Your task to perform on an android device: View the shopping cart on ebay. Add usb-a to usb-b to the cart on ebay Image 0: 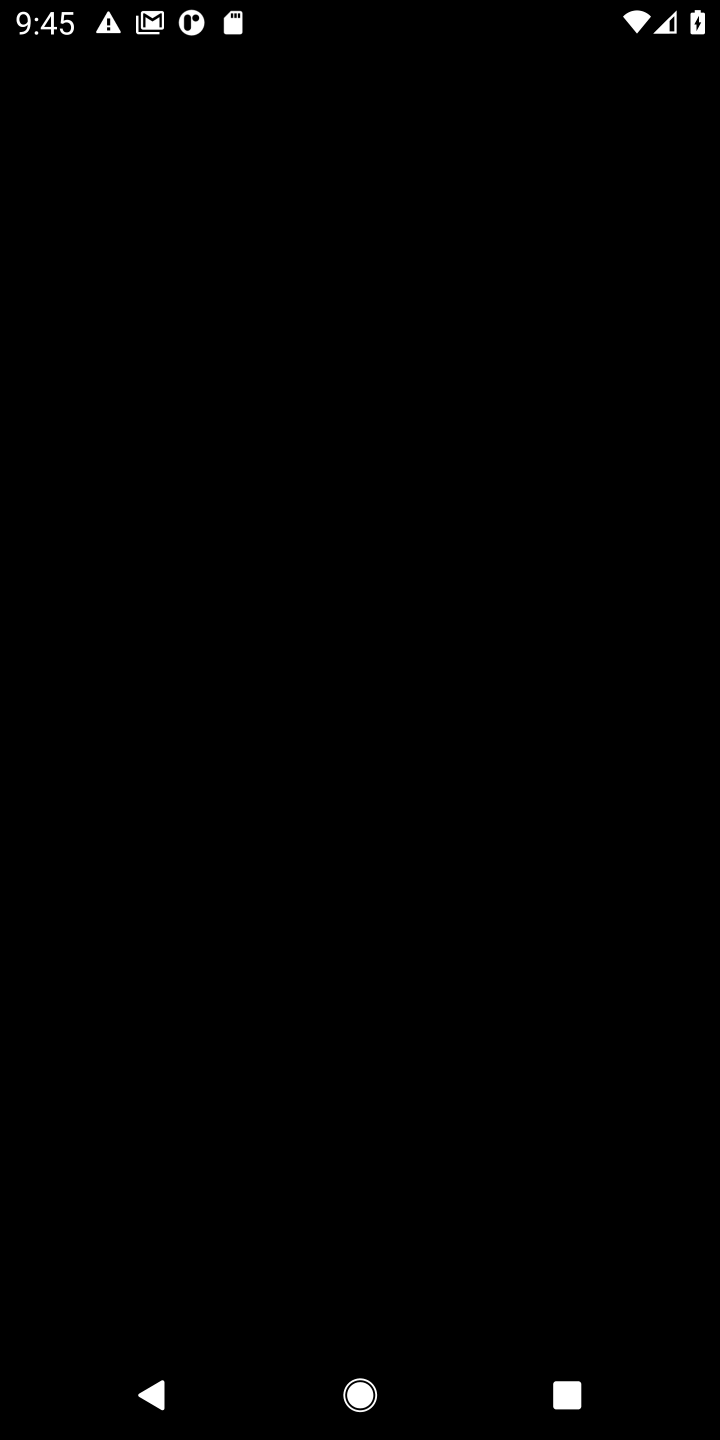
Step 0: press home button
Your task to perform on an android device: View the shopping cart on ebay. Add usb-a to usb-b to the cart on ebay Image 1: 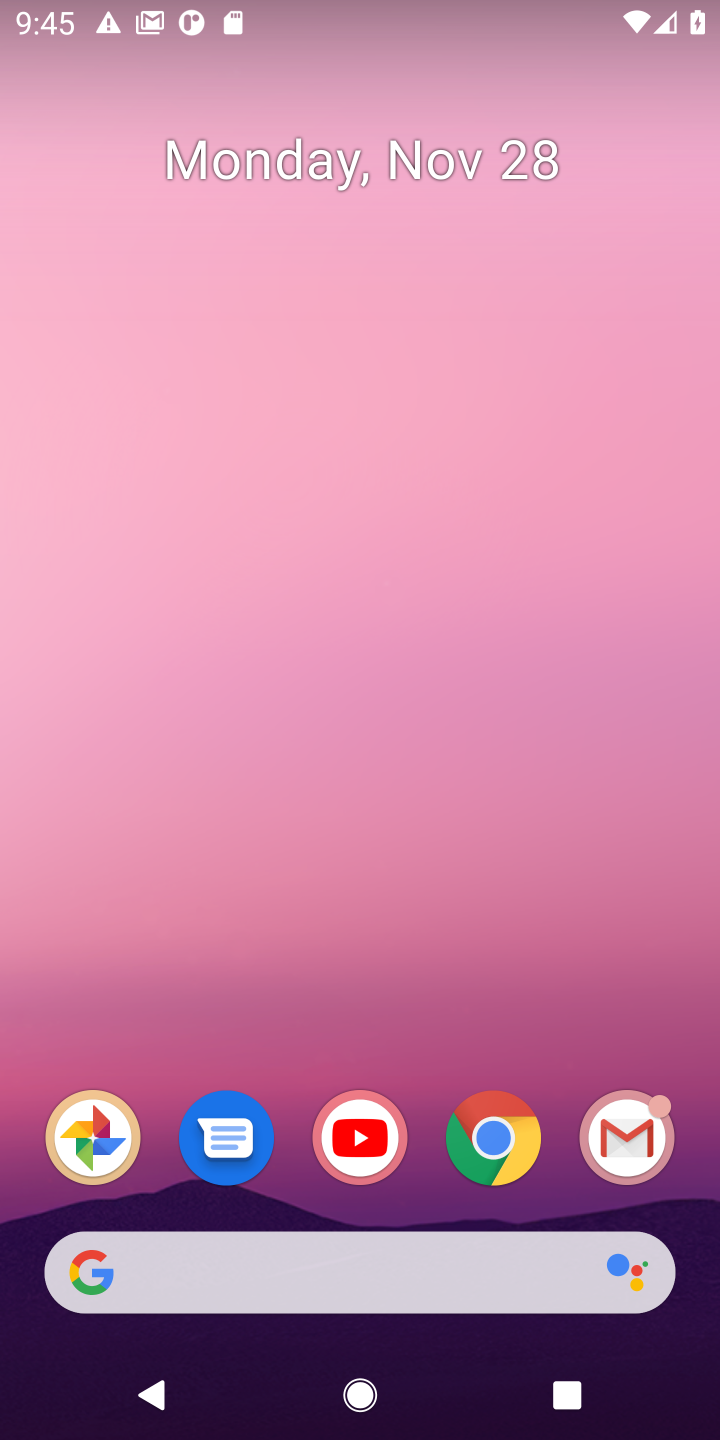
Step 1: click (497, 1145)
Your task to perform on an android device: View the shopping cart on ebay. Add usb-a to usb-b to the cart on ebay Image 2: 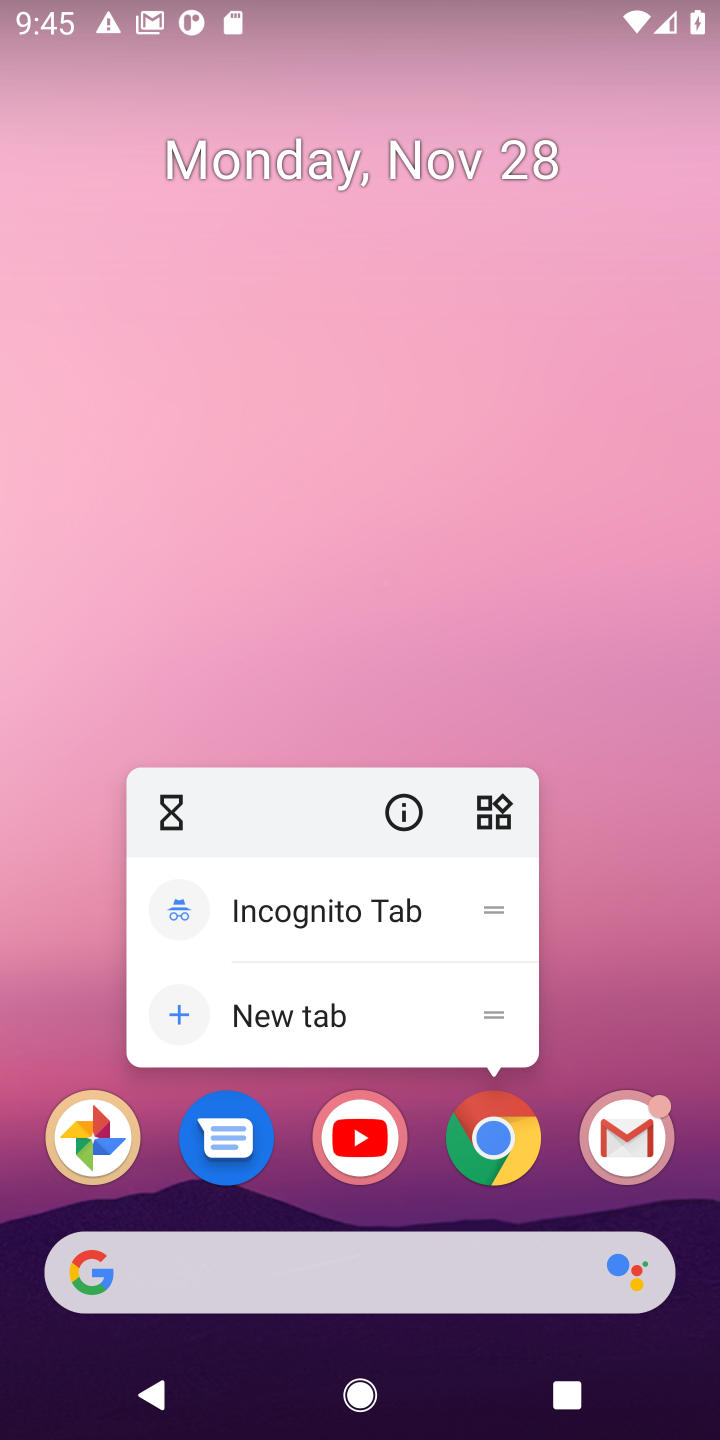
Step 2: click (497, 1145)
Your task to perform on an android device: View the shopping cart on ebay. Add usb-a to usb-b to the cart on ebay Image 3: 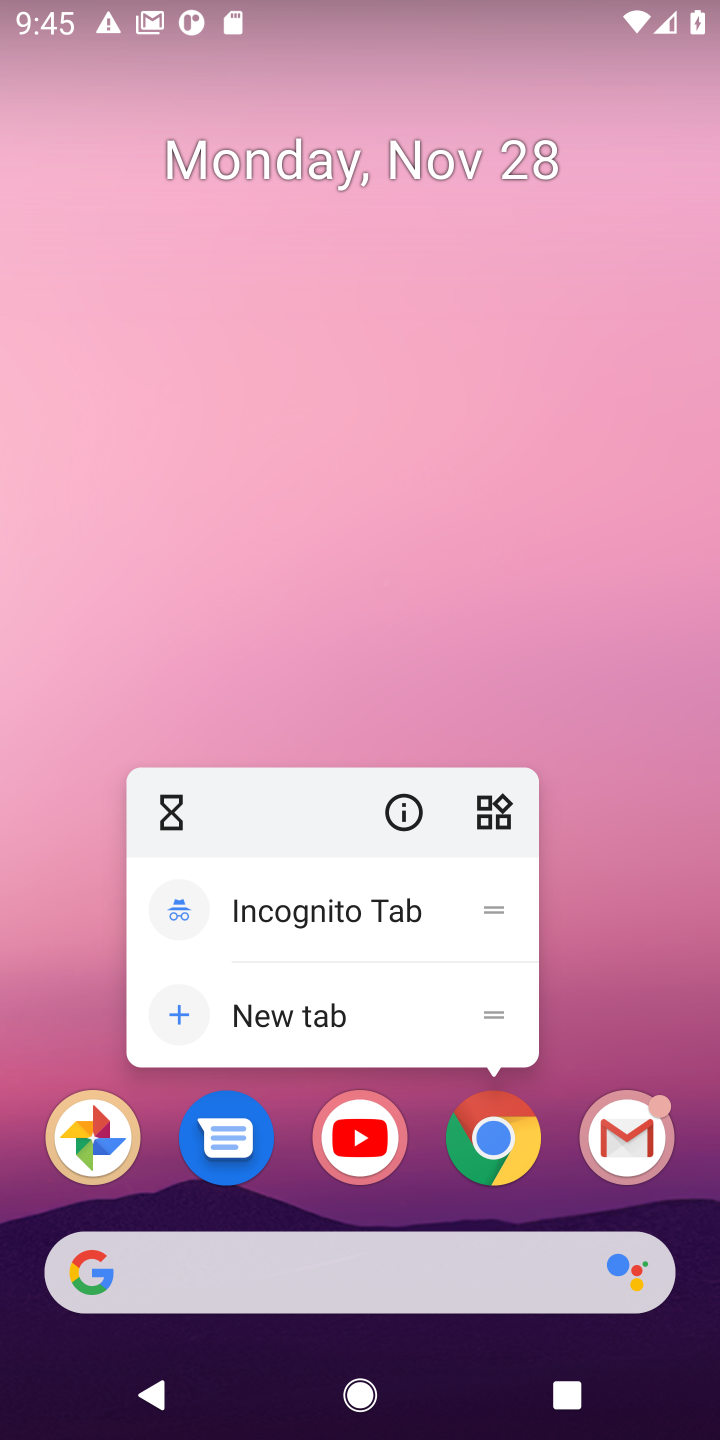
Step 3: click (497, 1145)
Your task to perform on an android device: View the shopping cart on ebay. Add usb-a to usb-b to the cart on ebay Image 4: 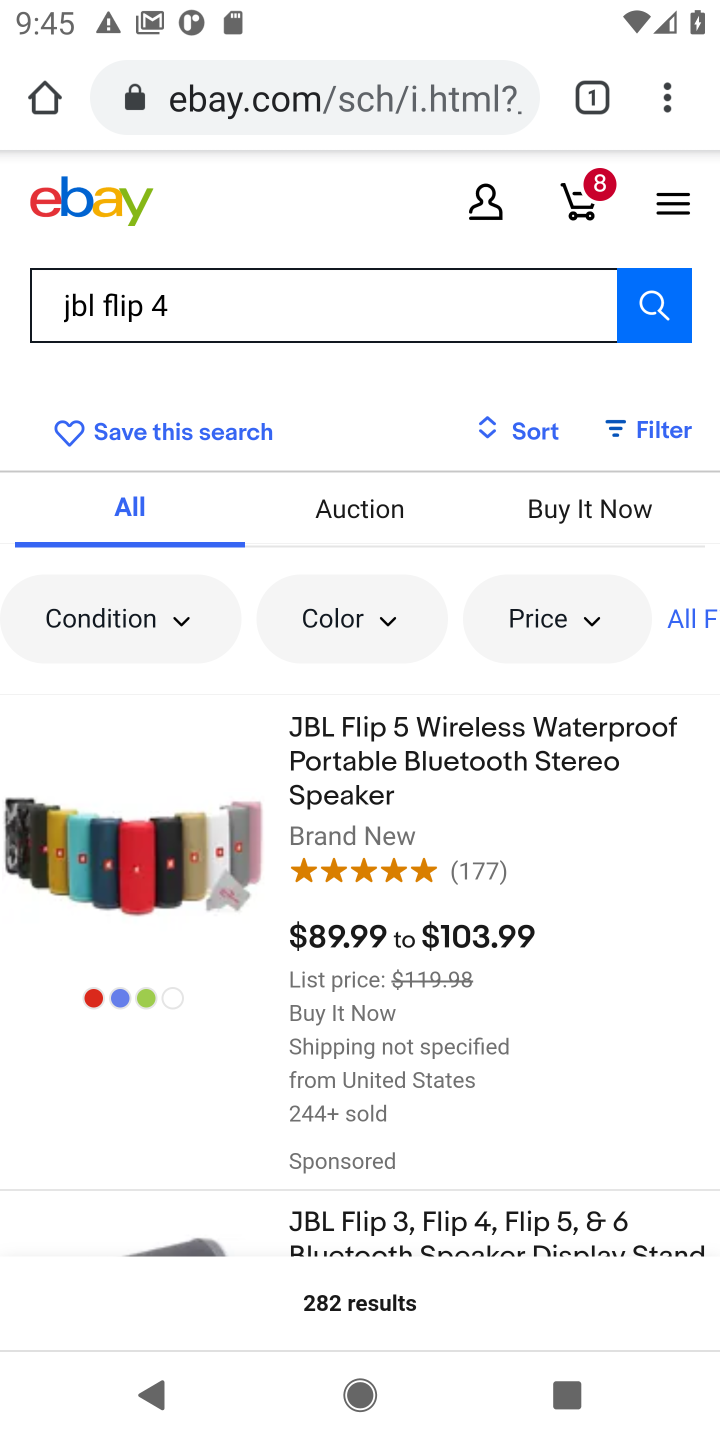
Step 4: click (583, 206)
Your task to perform on an android device: View the shopping cart on ebay. Add usb-a to usb-b to the cart on ebay Image 5: 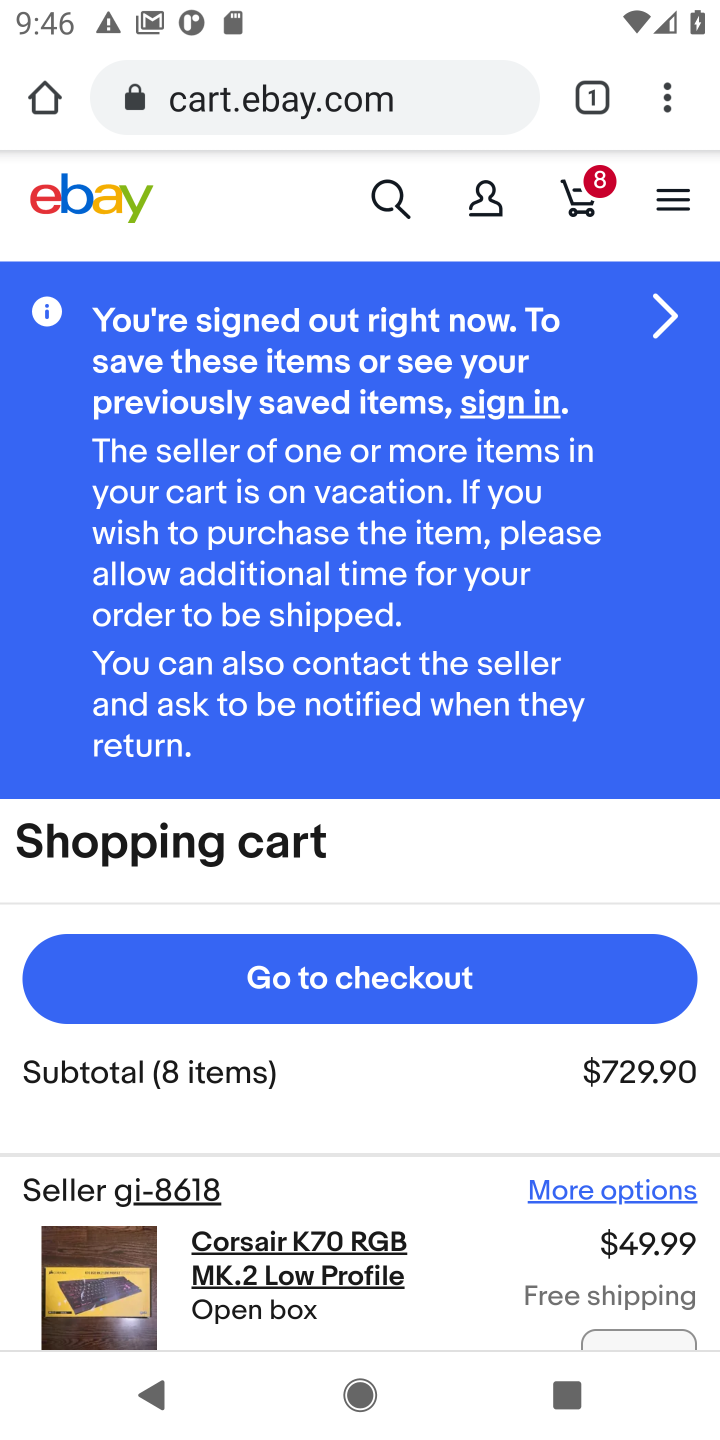
Step 5: click (391, 204)
Your task to perform on an android device: View the shopping cart on ebay. Add usb-a to usb-b to the cart on ebay Image 6: 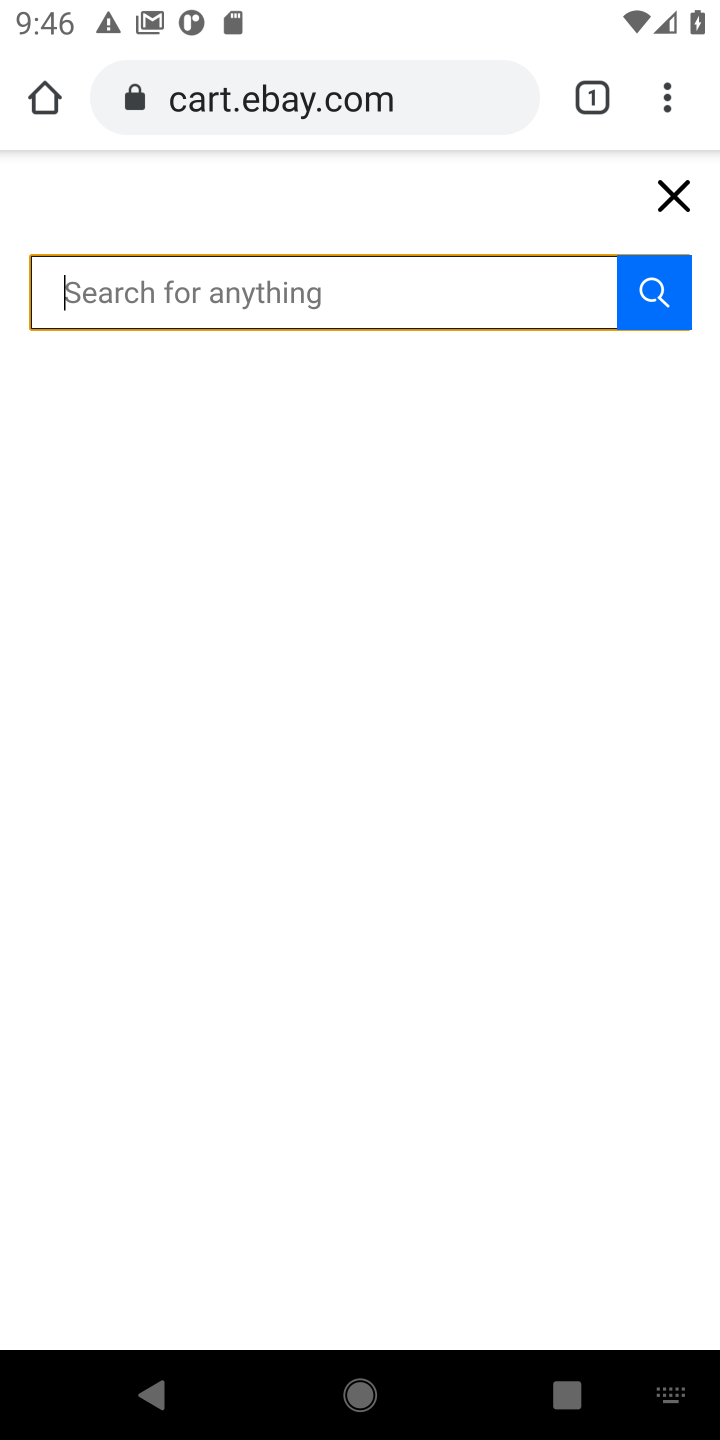
Step 6: type "usb-a to usb-b"
Your task to perform on an android device: View the shopping cart on ebay. Add usb-a to usb-b to the cart on ebay Image 7: 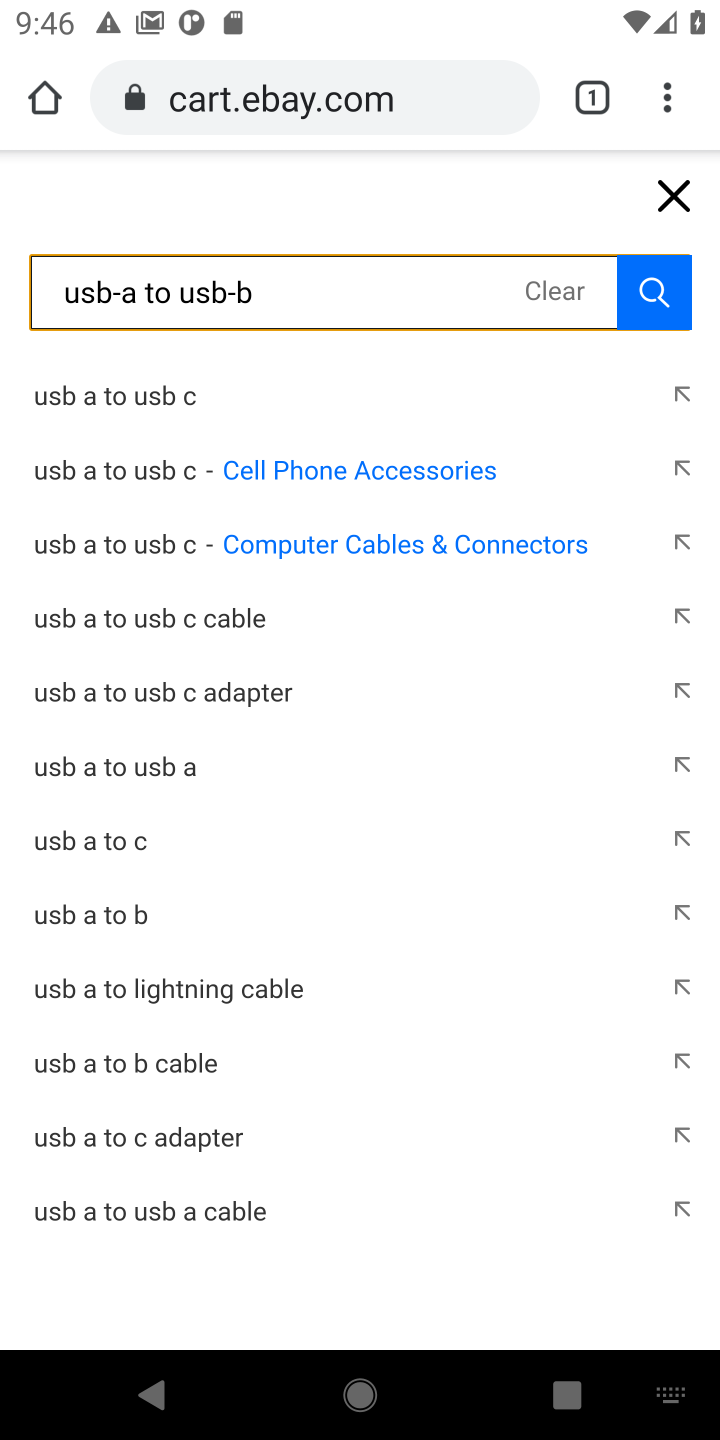
Step 7: click (655, 296)
Your task to perform on an android device: View the shopping cart on ebay. Add usb-a to usb-b to the cart on ebay Image 8: 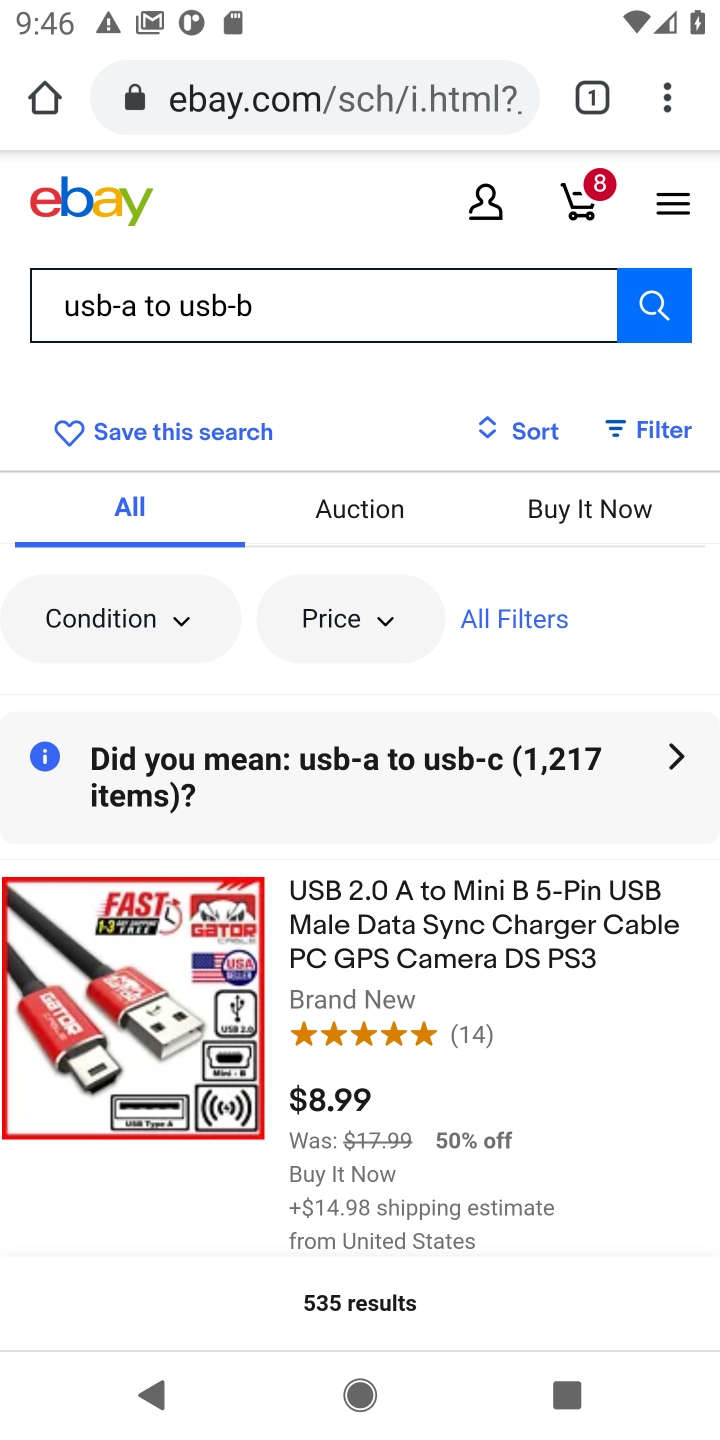
Step 8: drag from (404, 1054) to (429, 588)
Your task to perform on an android device: View the shopping cart on ebay. Add usb-a to usb-b to the cart on ebay Image 9: 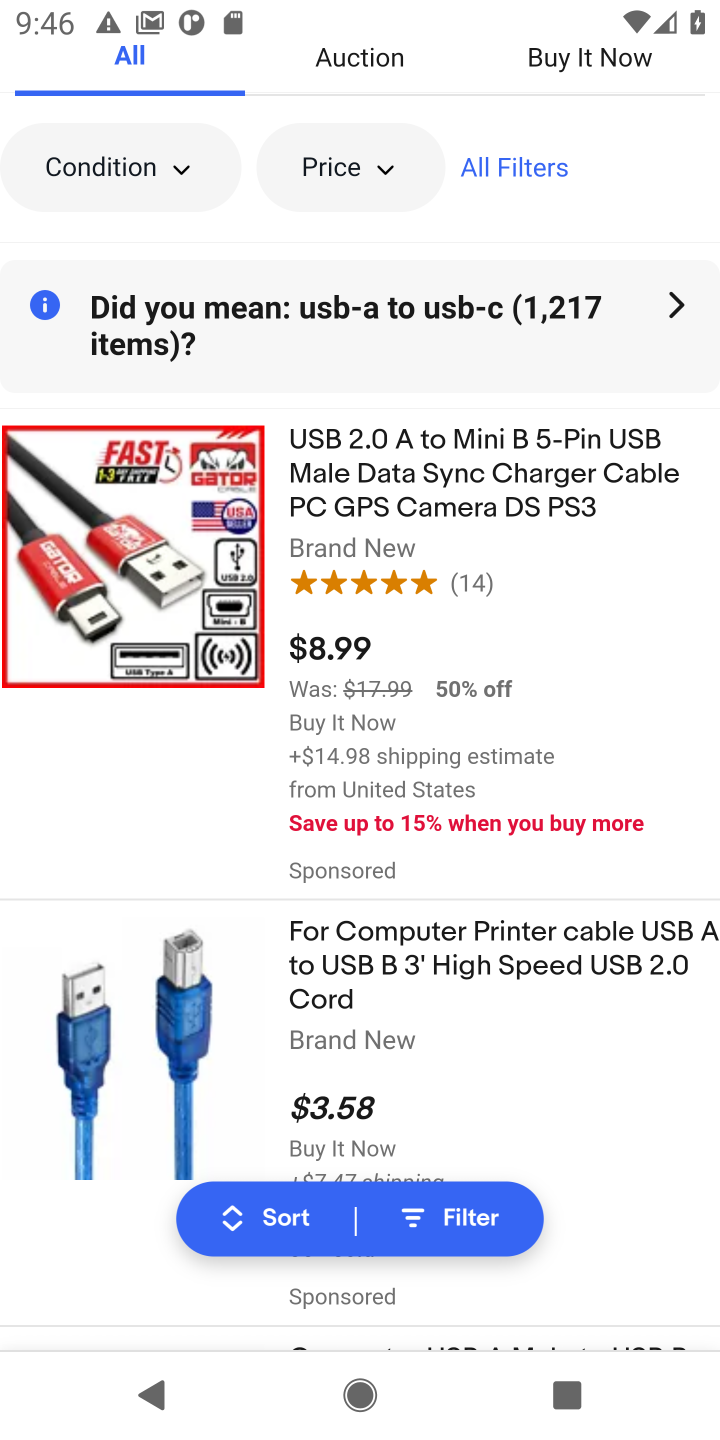
Step 9: click (457, 514)
Your task to perform on an android device: View the shopping cart on ebay. Add usb-a to usb-b to the cart on ebay Image 10: 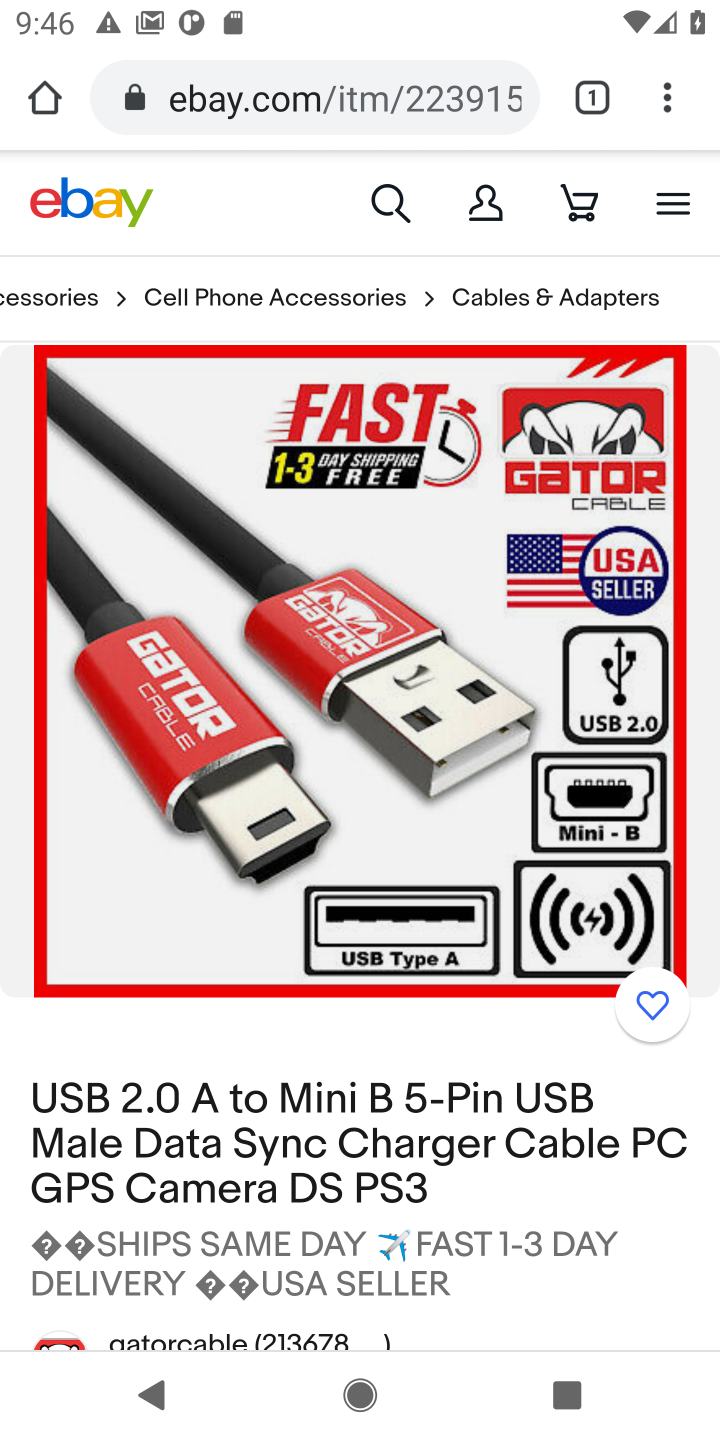
Step 10: drag from (507, 1086) to (507, 428)
Your task to perform on an android device: View the shopping cart on ebay. Add usb-a to usb-b to the cart on ebay Image 11: 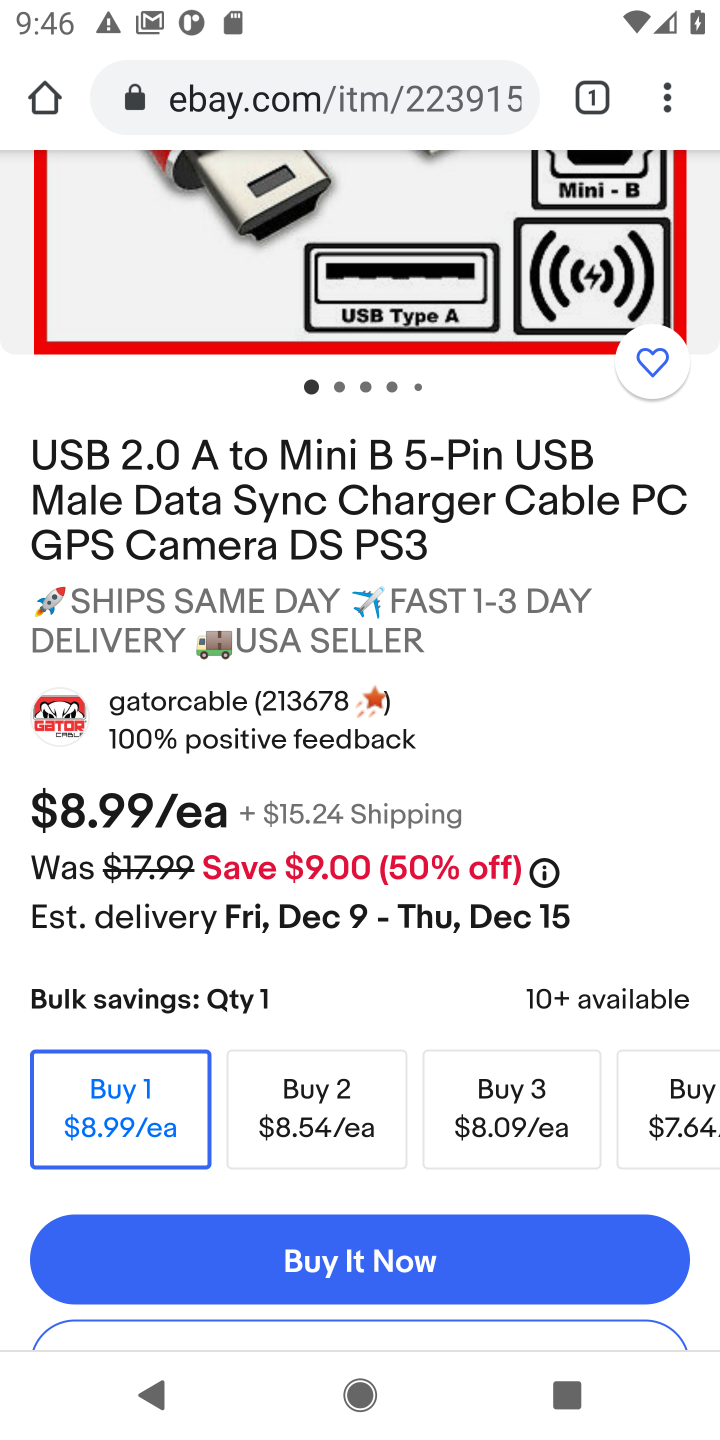
Step 11: drag from (412, 1098) to (422, 665)
Your task to perform on an android device: View the shopping cart on ebay. Add usb-a to usb-b to the cart on ebay Image 12: 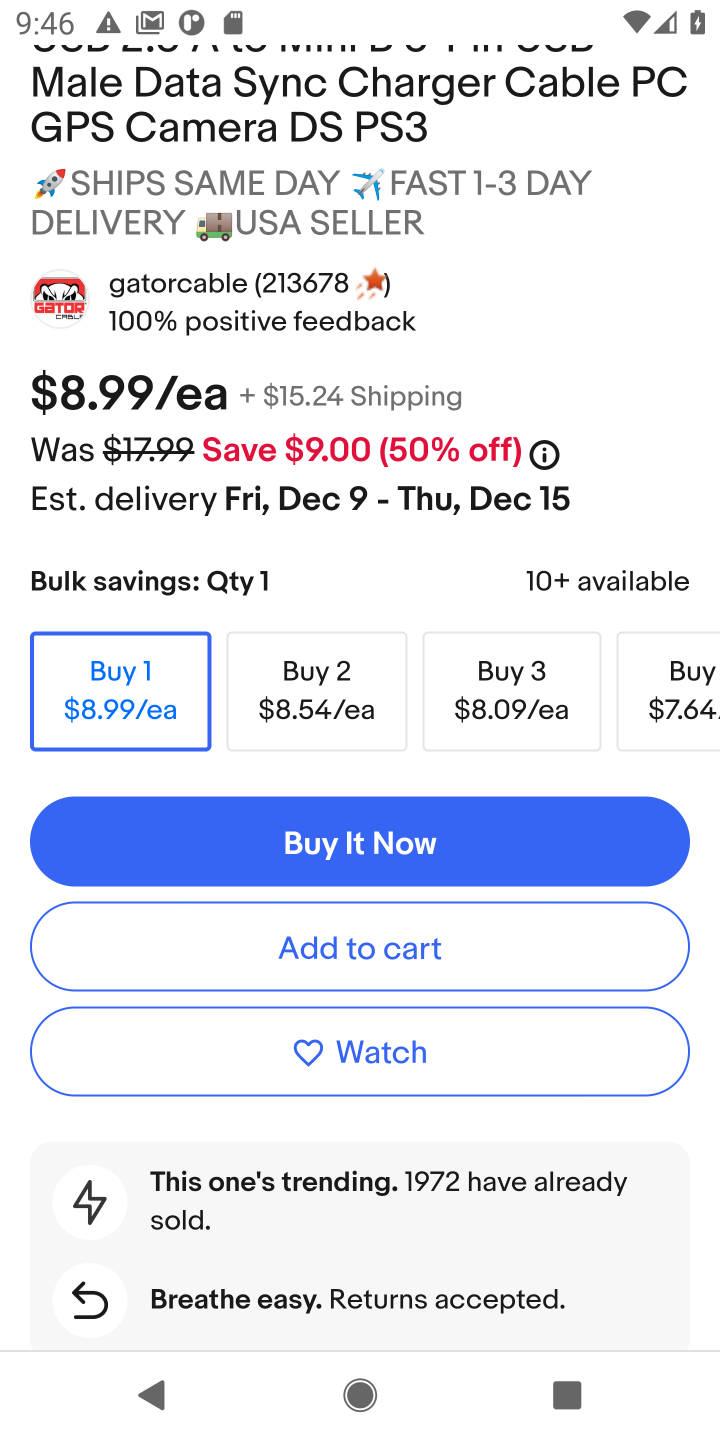
Step 12: click (362, 938)
Your task to perform on an android device: View the shopping cart on ebay. Add usb-a to usb-b to the cart on ebay Image 13: 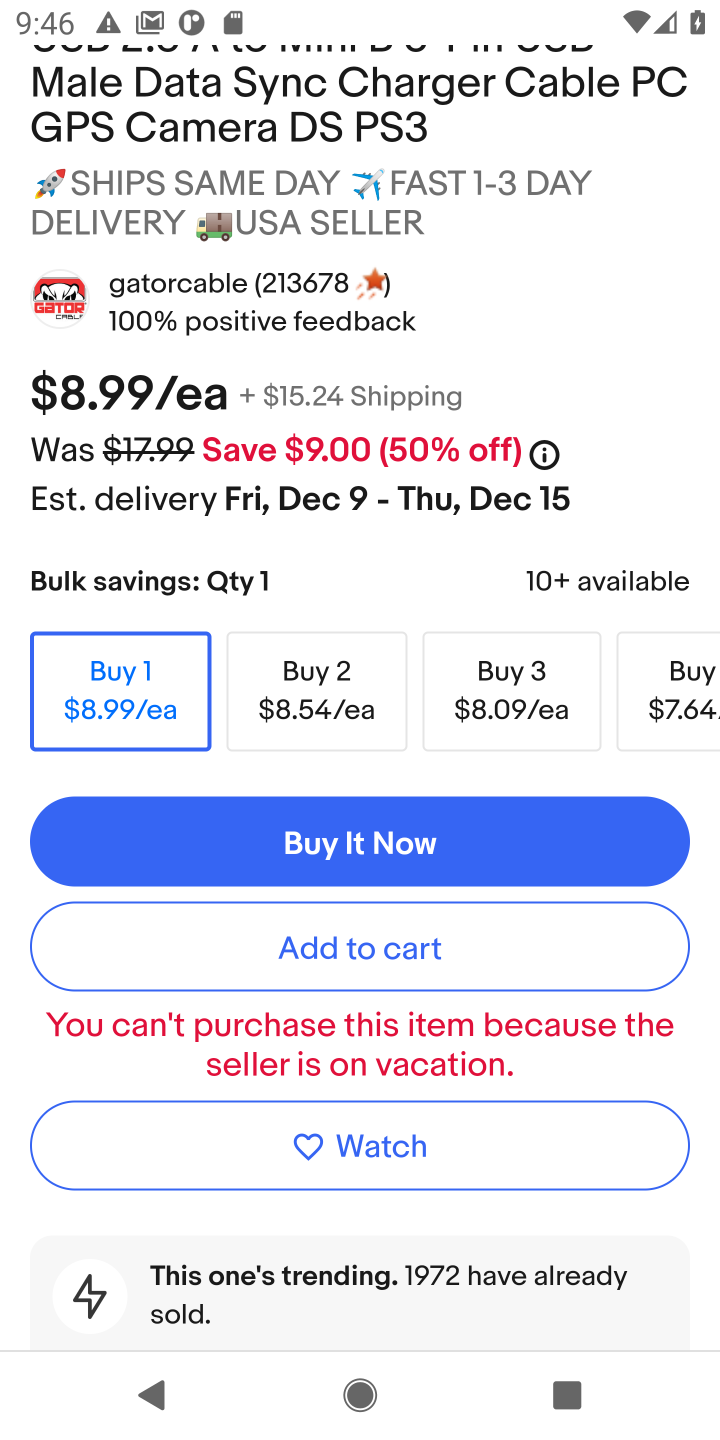
Step 13: press back button
Your task to perform on an android device: View the shopping cart on ebay. Add usb-a to usb-b to the cart on ebay Image 14: 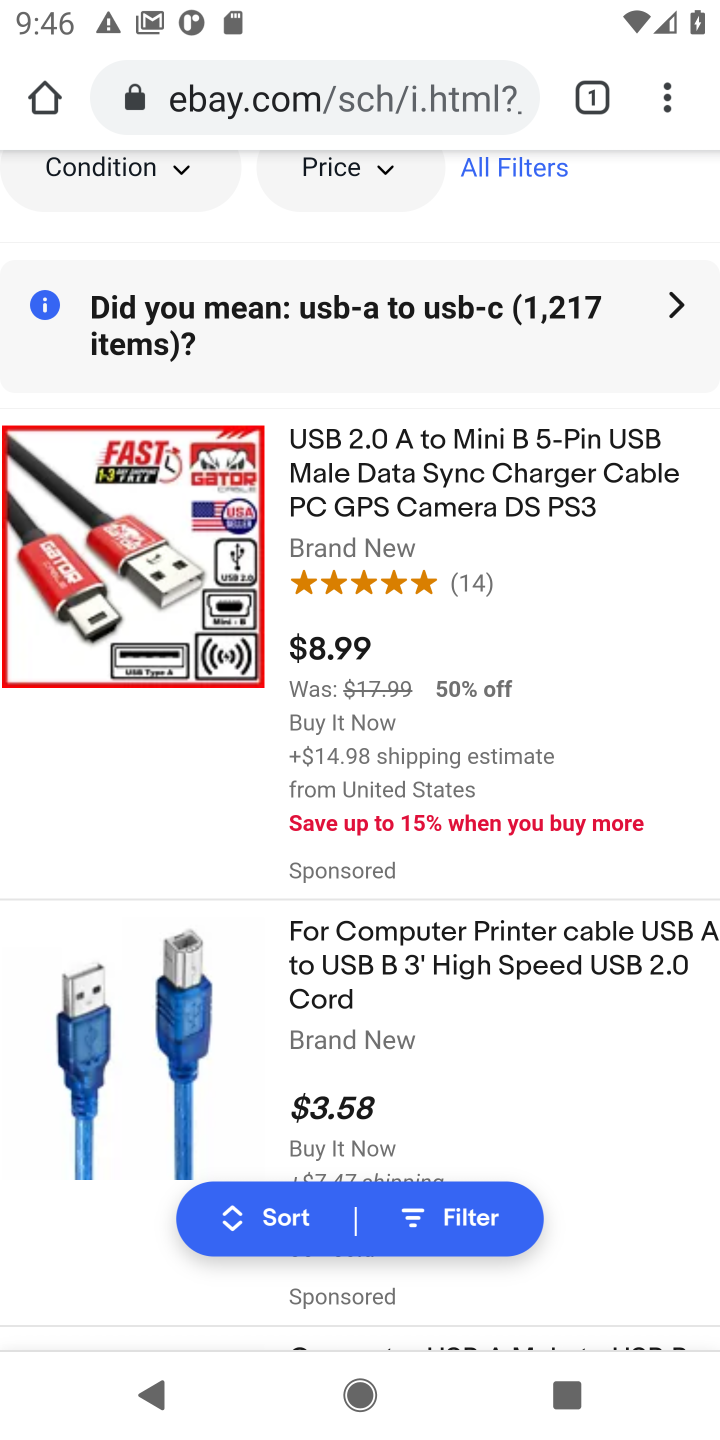
Step 14: drag from (428, 1045) to (489, 724)
Your task to perform on an android device: View the shopping cart on ebay. Add usb-a to usb-b to the cart on ebay Image 15: 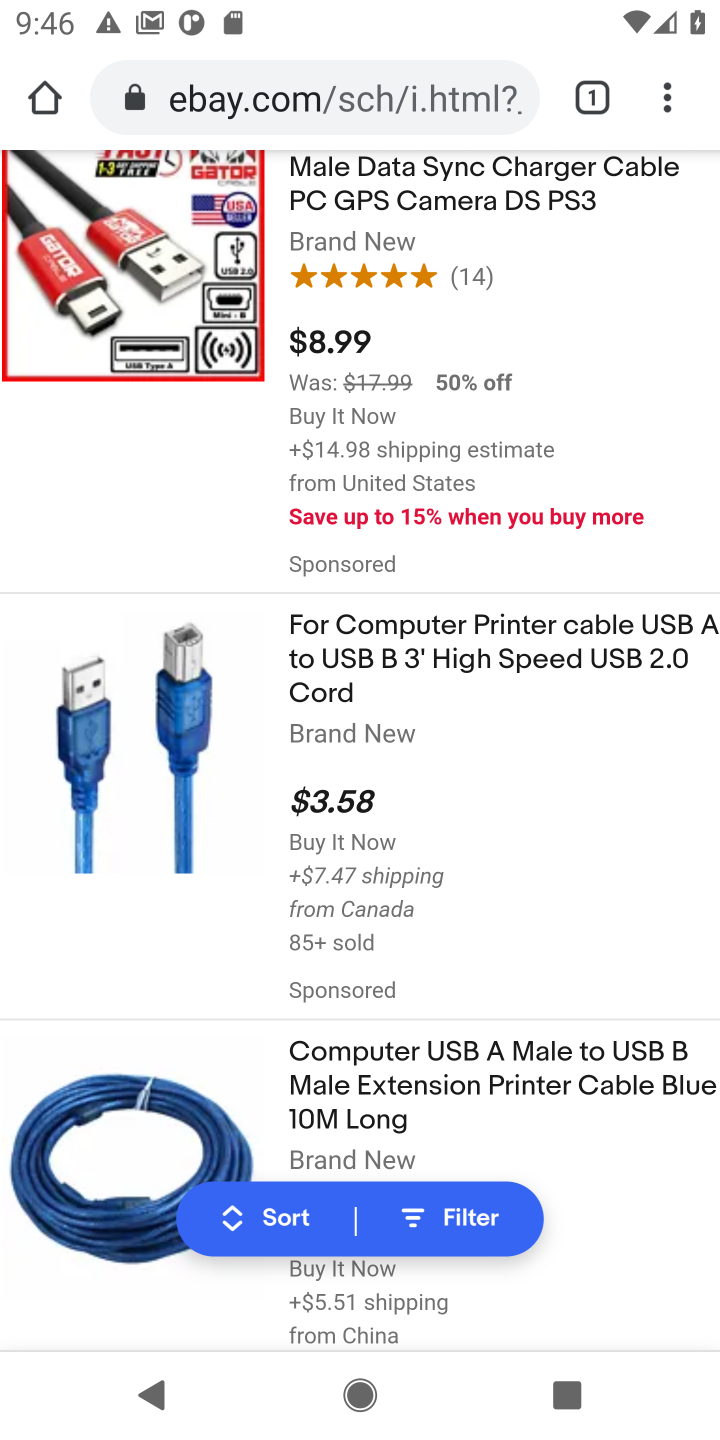
Step 15: click (327, 651)
Your task to perform on an android device: View the shopping cart on ebay. Add usb-a to usb-b to the cart on ebay Image 16: 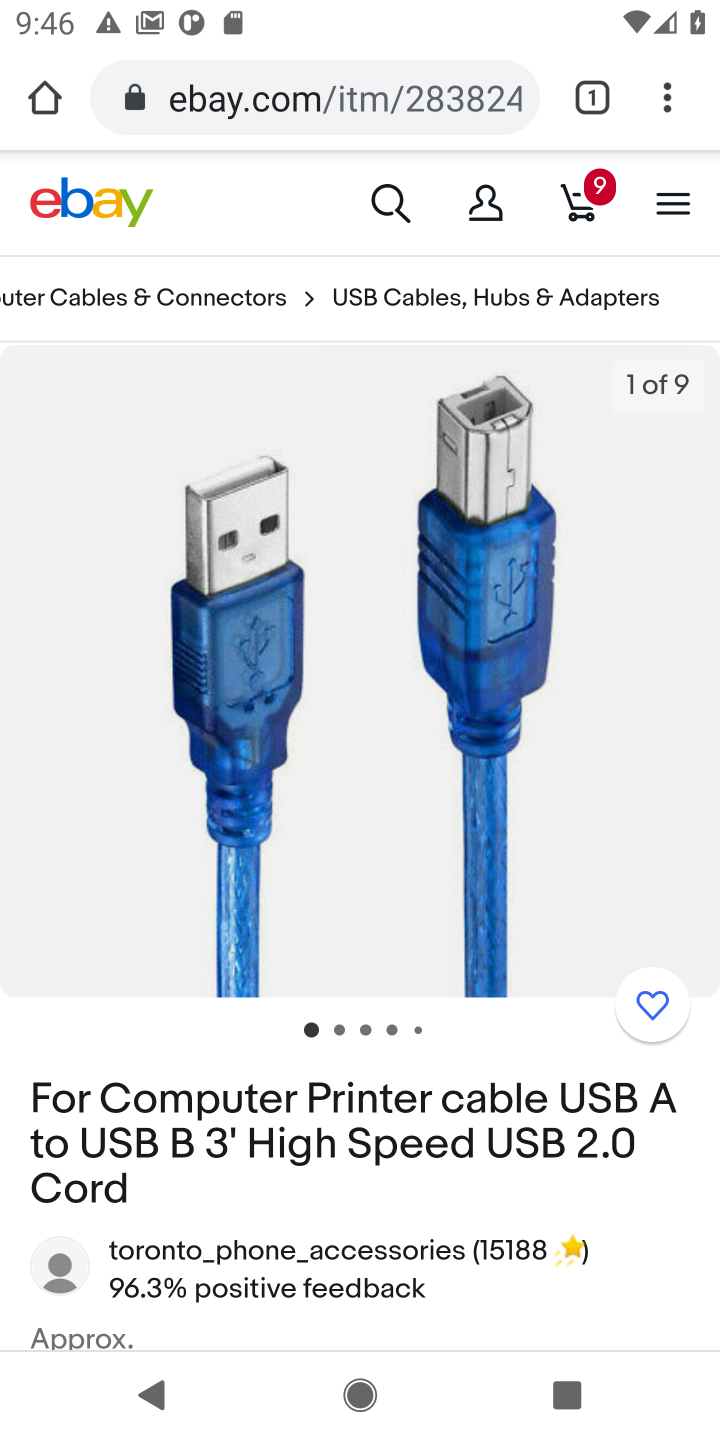
Step 16: drag from (507, 1044) to (531, 498)
Your task to perform on an android device: View the shopping cart on ebay. Add usb-a to usb-b to the cart on ebay Image 17: 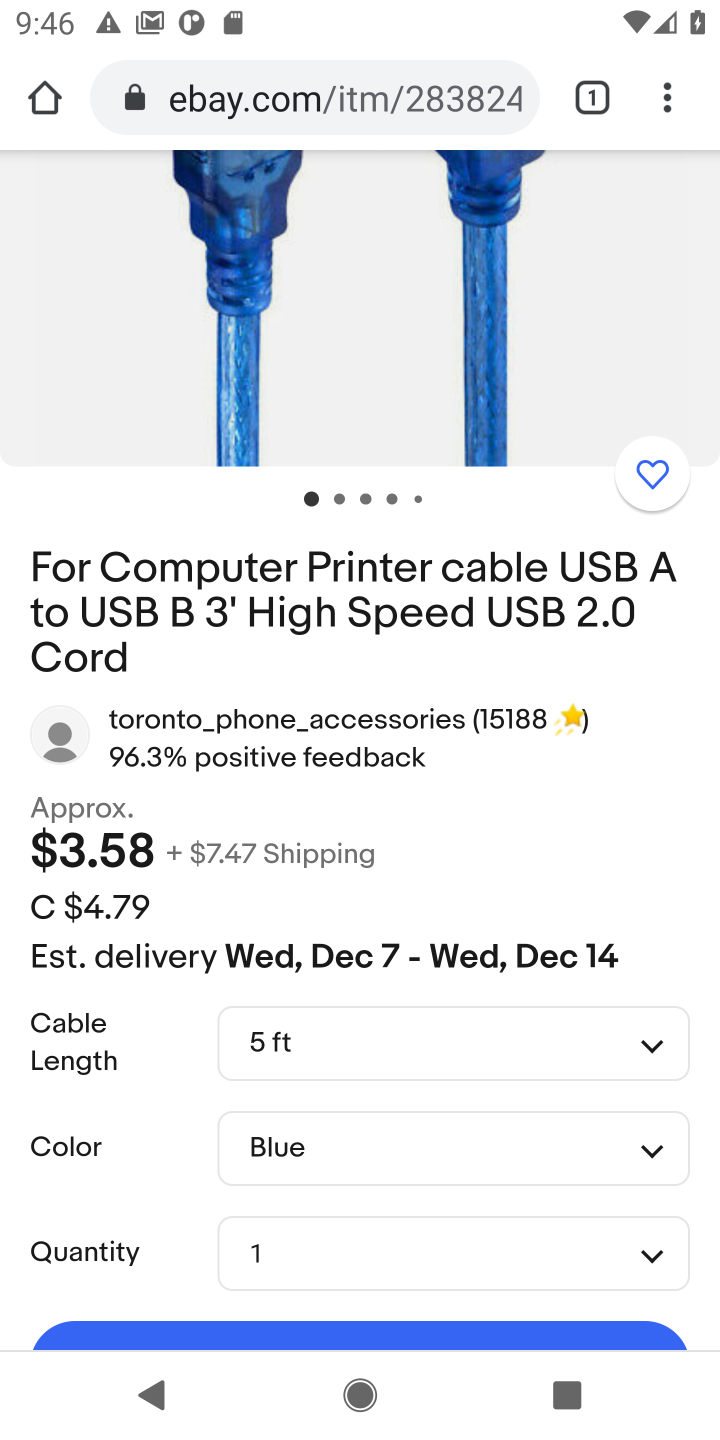
Step 17: drag from (428, 1004) to (445, 669)
Your task to perform on an android device: View the shopping cart on ebay. Add usb-a to usb-b to the cart on ebay Image 18: 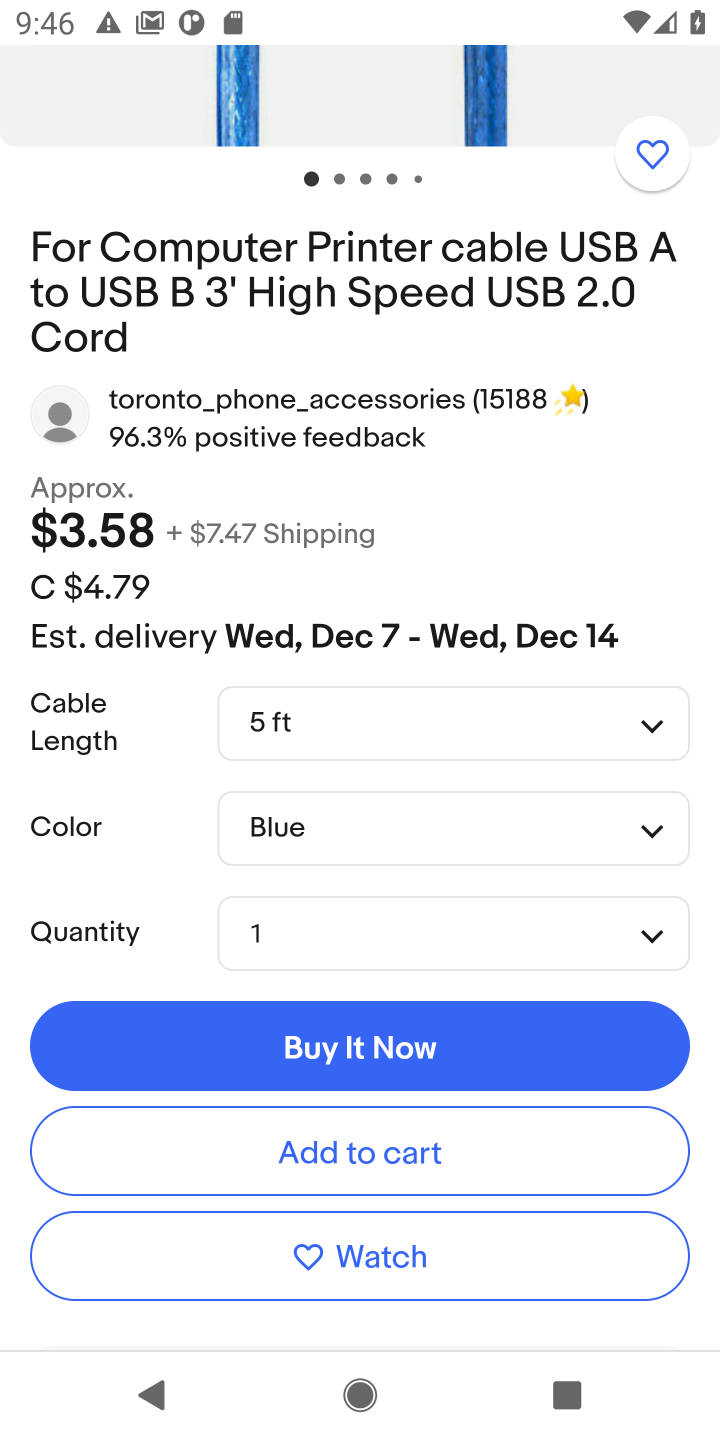
Step 18: click (330, 1156)
Your task to perform on an android device: View the shopping cart on ebay. Add usb-a to usb-b to the cart on ebay Image 19: 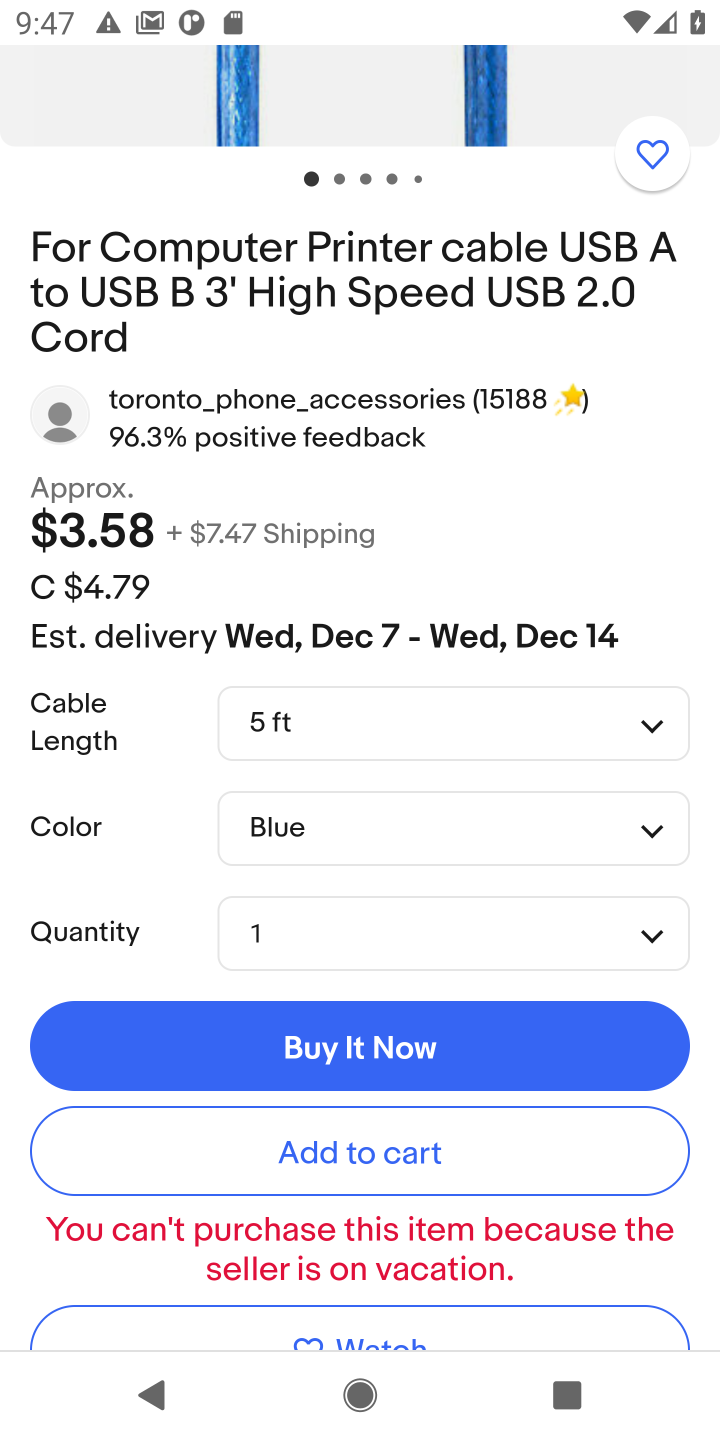
Step 19: press back button
Your task to perform on an android device: View the shopping cart on ebay. Add usb-a to usb-b to the cart on ebay Image 20: 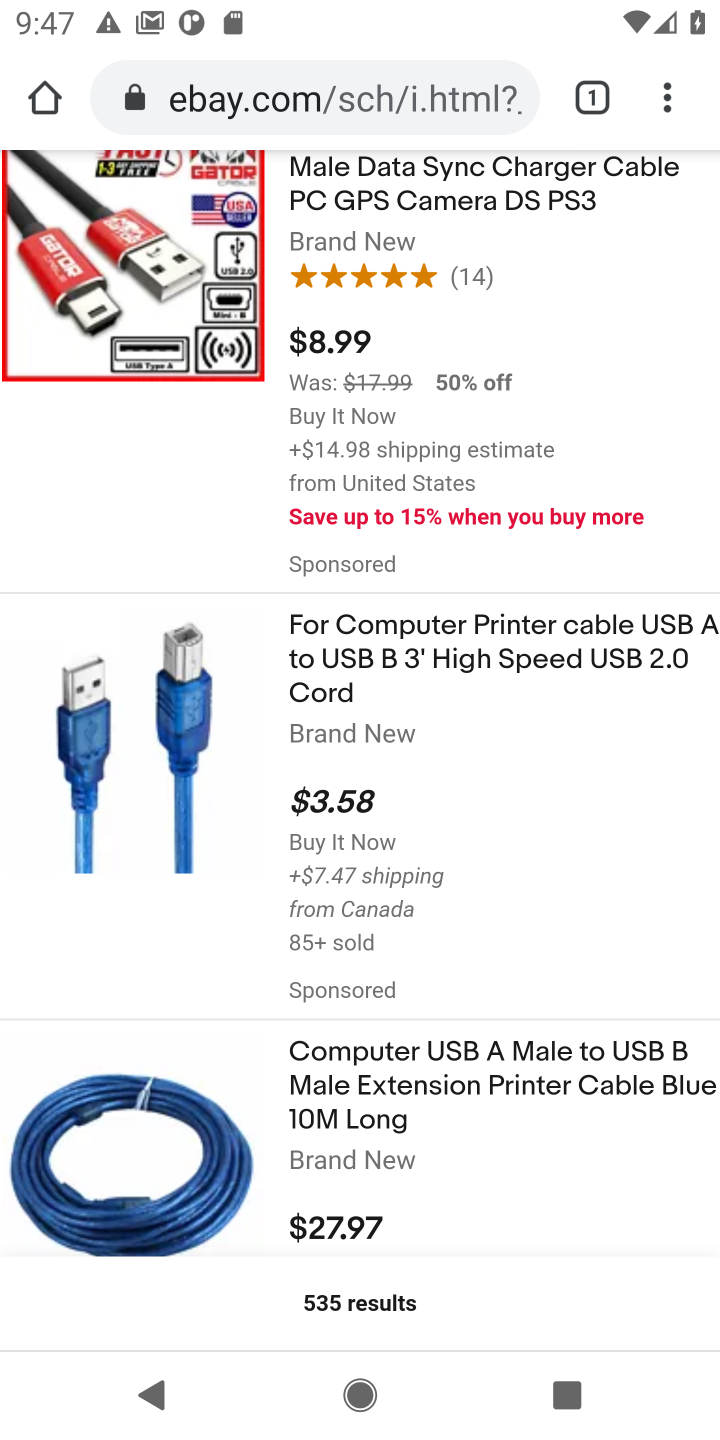
Step 20: drag from (526, 1080) to (529, 651)
Your task to perform on an android device: View the shopping cart on ebay. Add usb-a to usb-b to the cart on ebay Image 21: 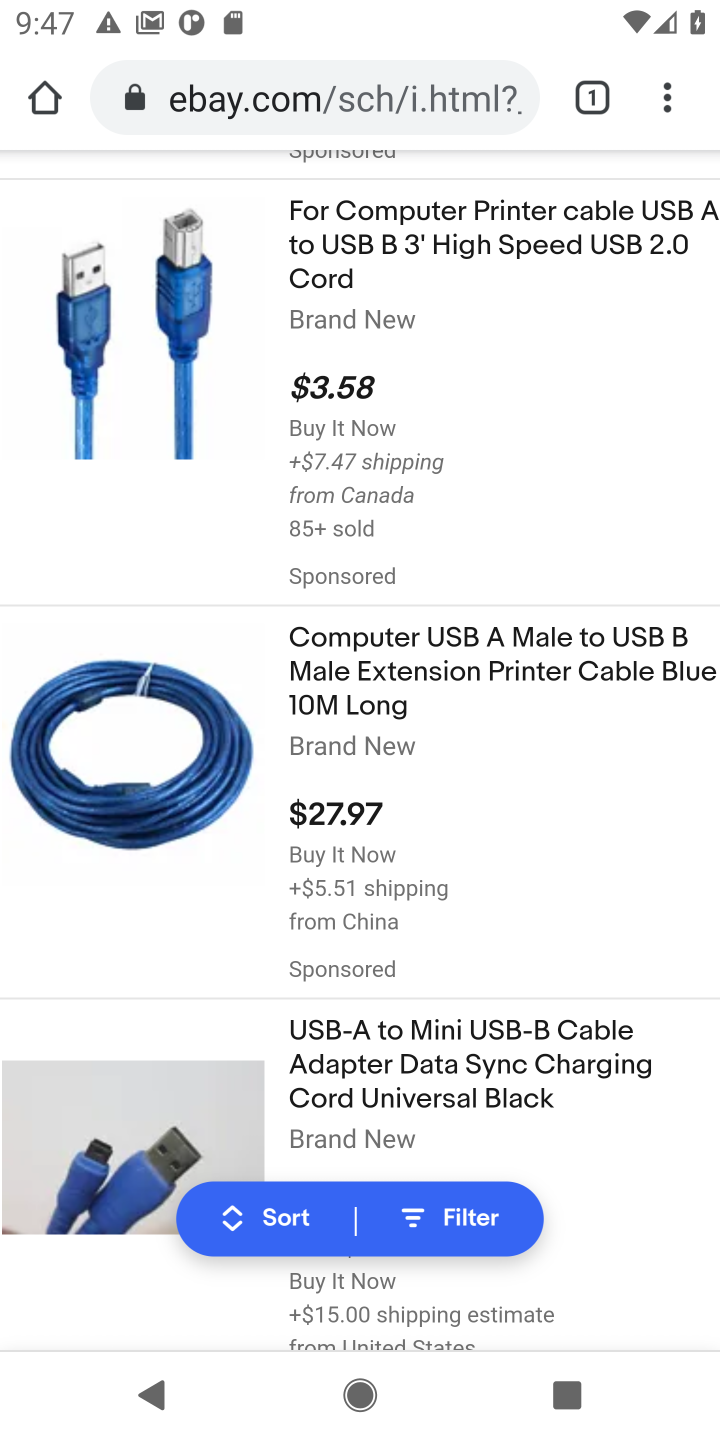
Step 21: click (331, 729)
Your task to perform on an android device: View the shopping cart on ebay. Add usb-a to usb-b to the cart on ebay Image 22: 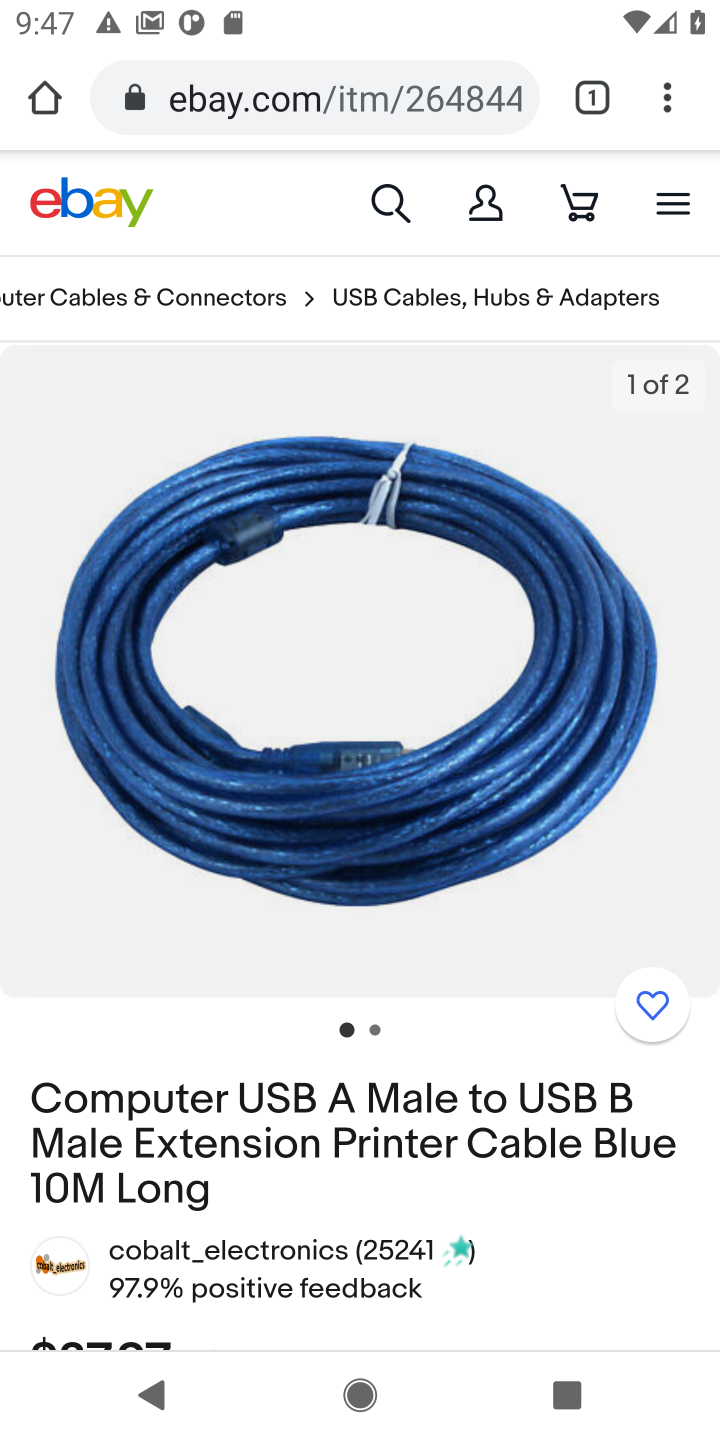
Step 22: drag from (416, 991) to (463, 596)
Your task to perform on an android device: View the shopping cart on ebay. Add usb-a to usb-b to the cart on ebay Image 23: 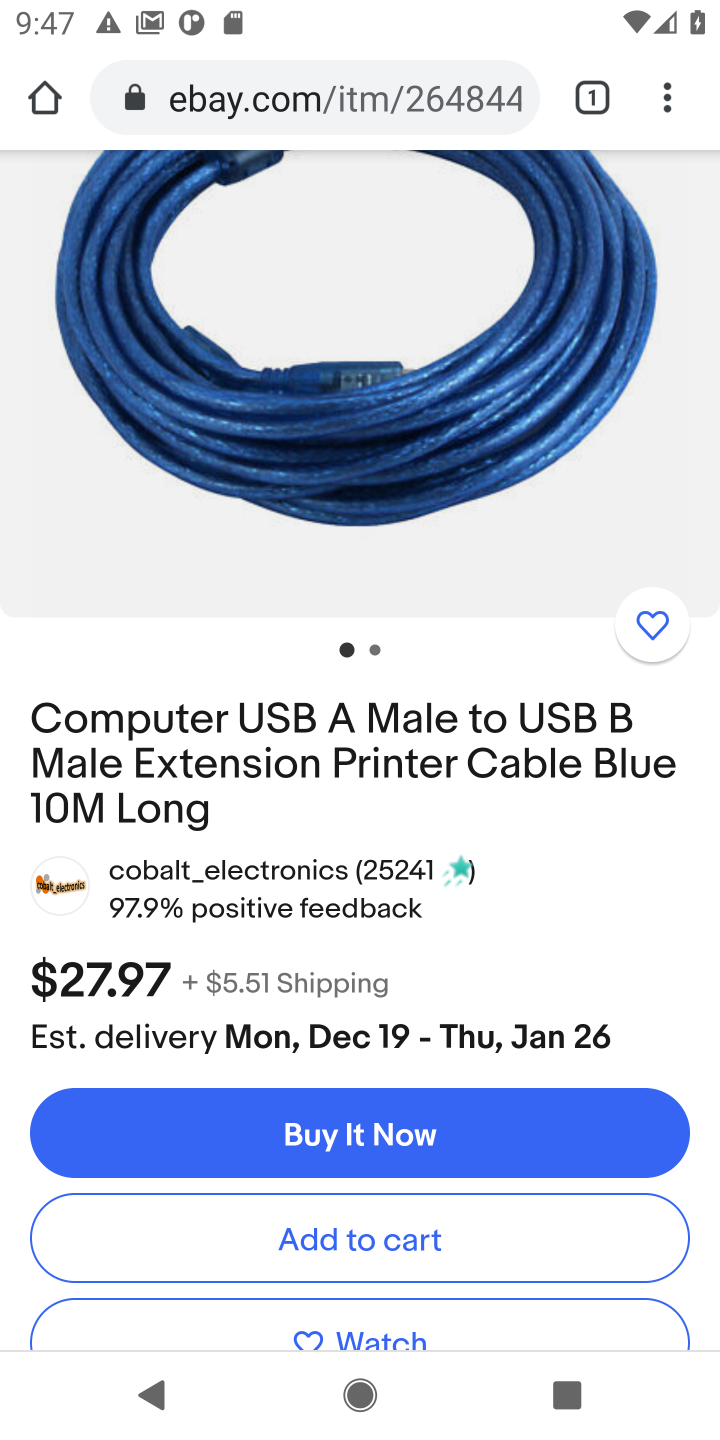
Step 23: click (324, 1224)
Your task to perform on an android device: View the shopping cart on ebay. Add usb-a to usb-b to the cart on ebay Image 24: 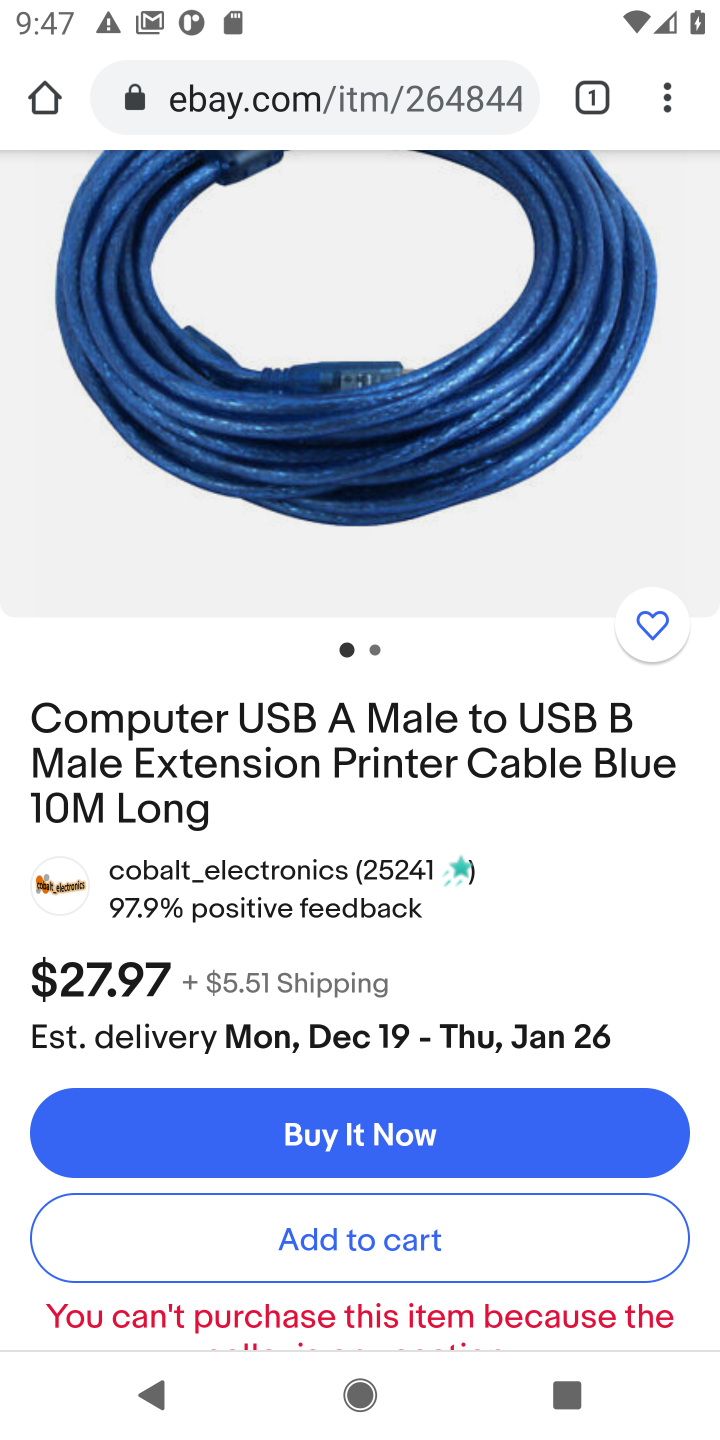
Step 24: task complete